Your task to perform on an android device: find photos in the google photos app Image 0: 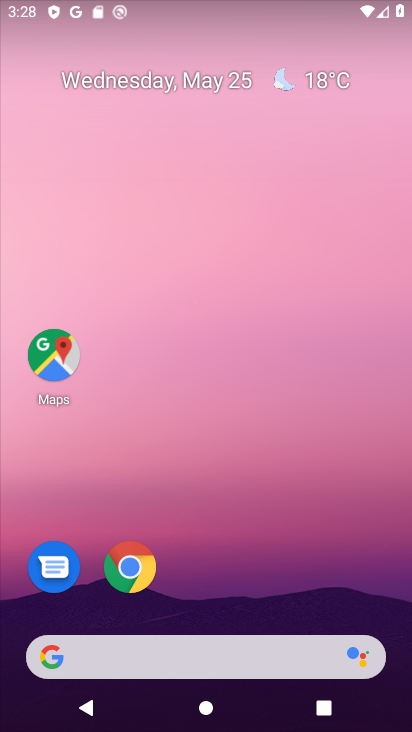
Step 0: drag from (350, 569) to (353, 208)
Your task to perform on an android device: find photos in the google photos app Image 1: 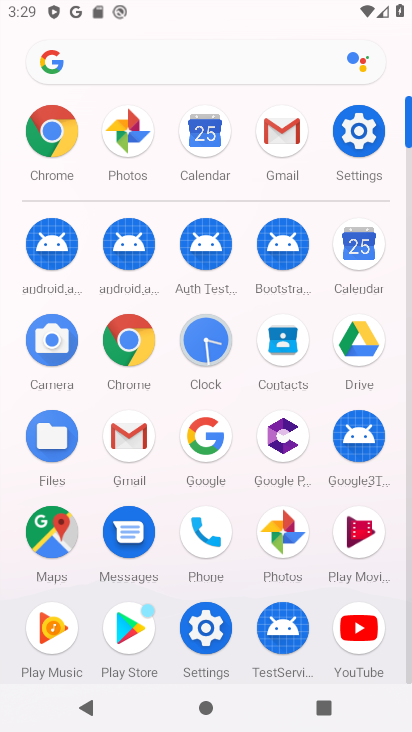
Step 1: click (283, 557)
Your task to perform on an android device: find photos in the google photos app Image 2: 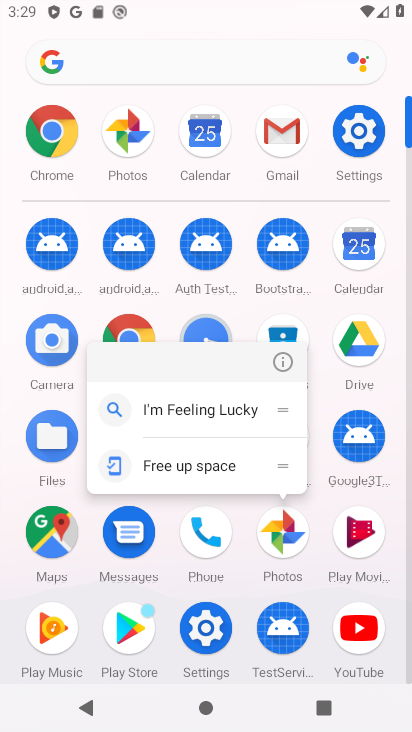
Step 2: click (283, 557)
Your task to perform on an android device: find photos in the google photos app Image 3: 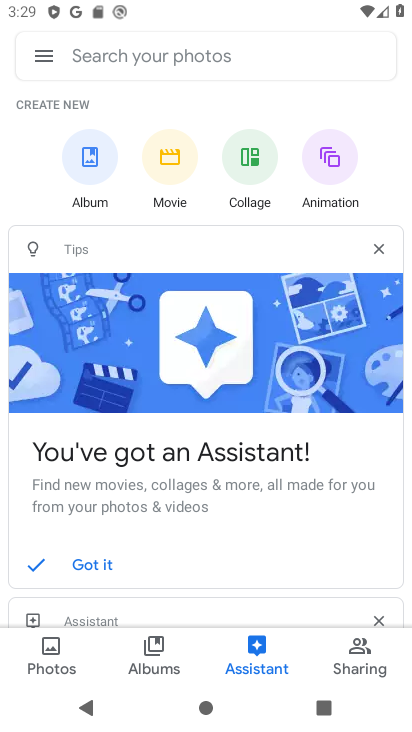
Step 3: click (69, 655)
Your task to perform on an android device: find photos in the google photos app Image 4: 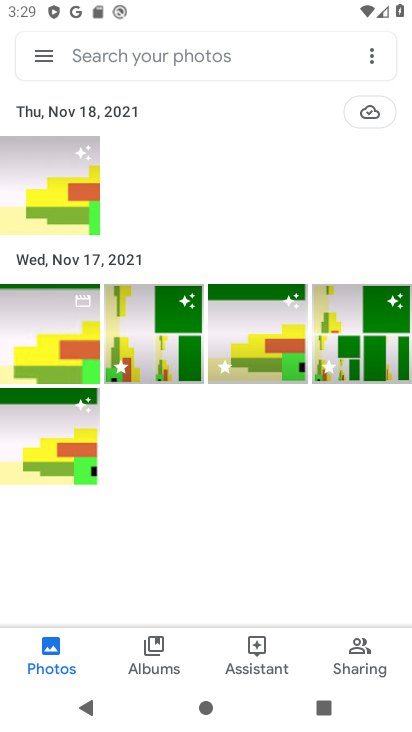
Step 4: click (39, 191)
Your task to perform on an android device: find photos in the google photos app Image 5: 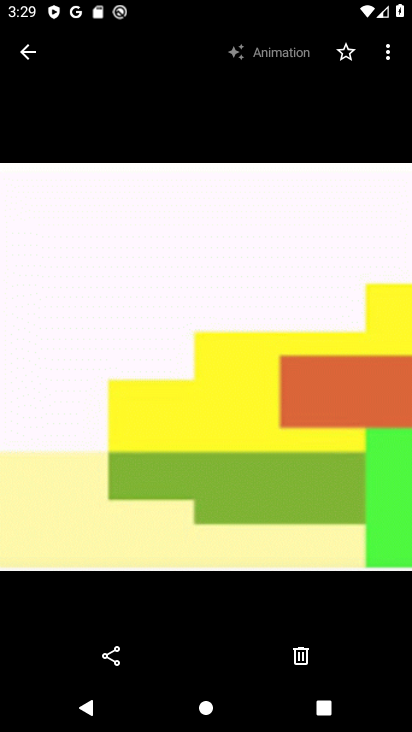
Step 5: task complete